Your task to perform on an android device: move an email to a new category in the gmail app Image 0: 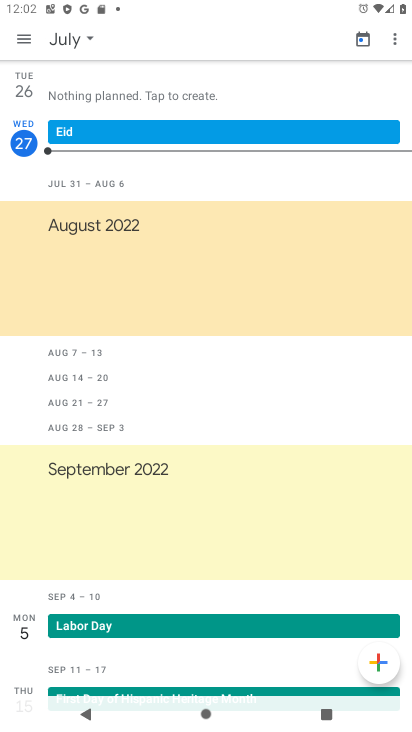
Step 0: press home button
Your task to perform on an android device: move an email to a new category in the gmail app Image 1: 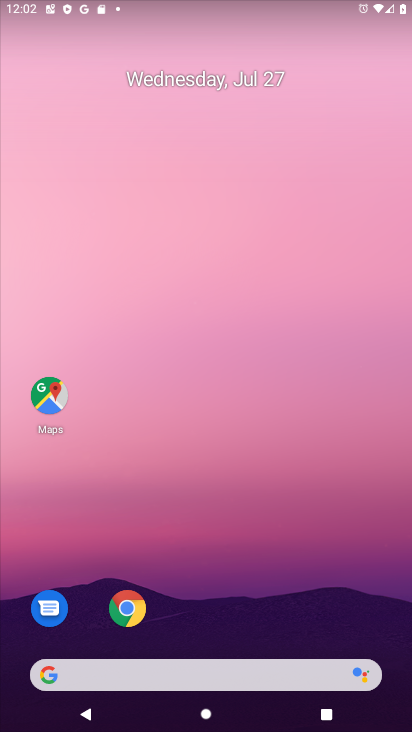
Step 1: drag from (186, 681) to (218, 5)
Your task to perform on an android device: move an email to a new category in the gmail app Image 2: 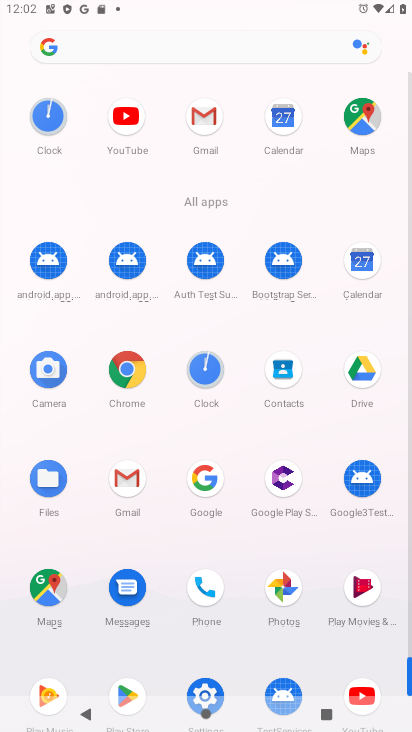
Step 2: click (126, 478)
Your task to perform on an android device: move an email to a new category in the gmail app Image 3: 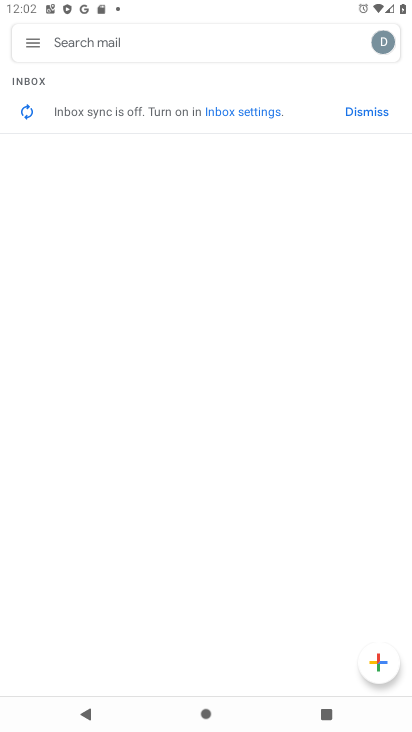
Step 3: click (36, 46)
Your task to perform on an android device: move an email to a new category in the gmail app Image 4: 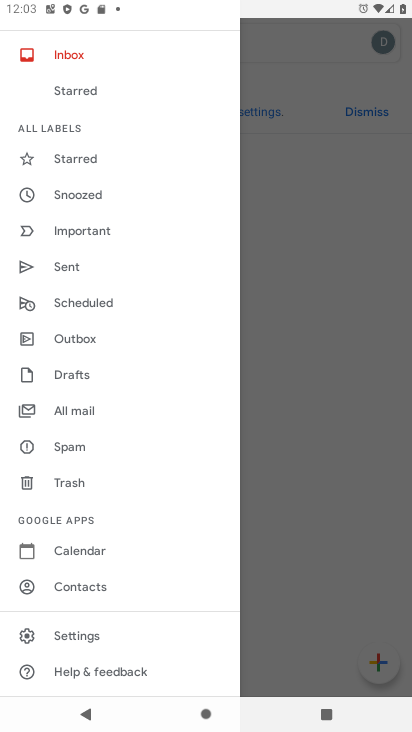
Step 4: click (86, 89)
Your task to perform on an android device: move an email to a new category in the gmail app Image 5: 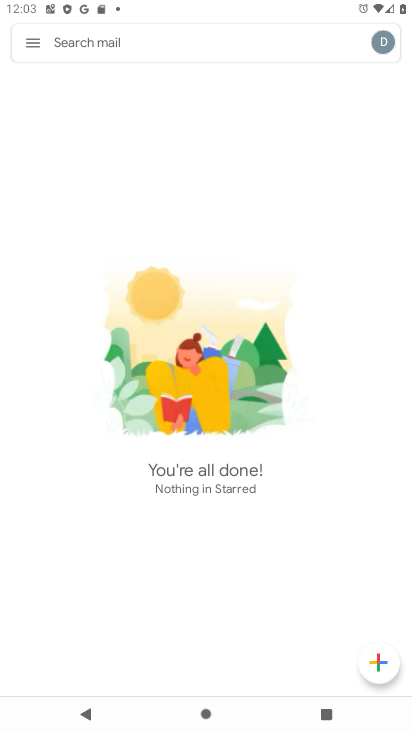
Step 5: click (30, 41)
Your task to perform on an android device: move an email to a new category in the gmail app Image 6: 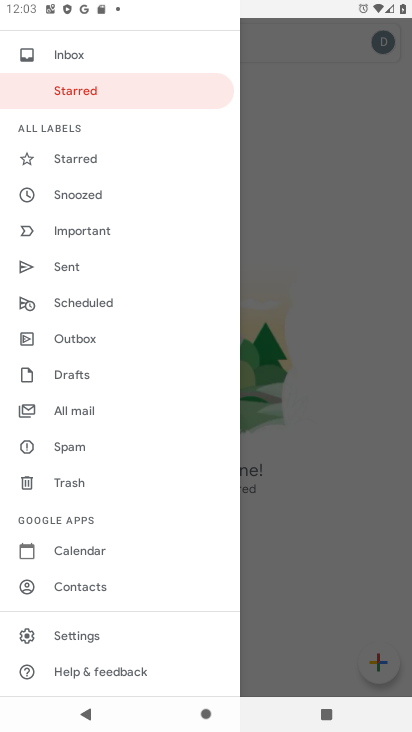
Step 6: click (71, 158)
Your task to perform on an android device: move an email to a new category in the gmail app Image 7: 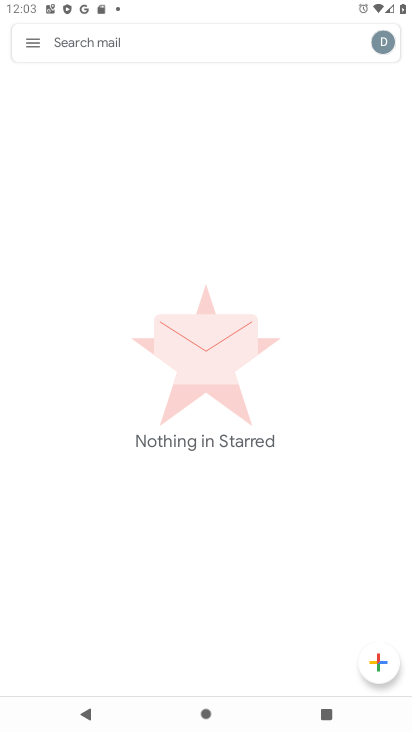
Step 7: click (39, 46)
Your task to perform on an android device: move an email to a new category in the gmail app Image 8: 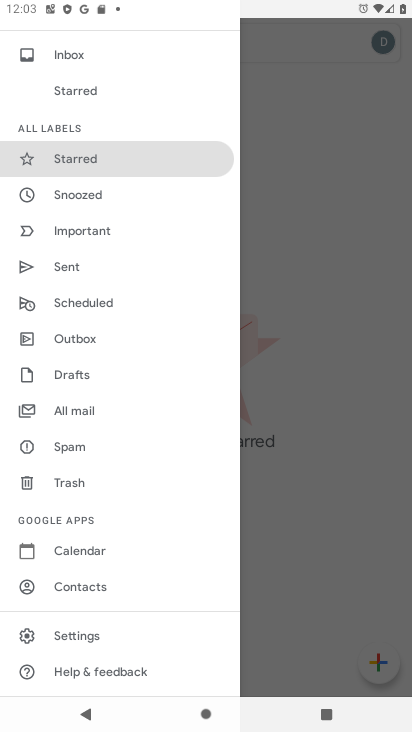
Step 8: click (84, 190)
Your task to perform on an android device: move an email to a new category in the gmail app Image 9: 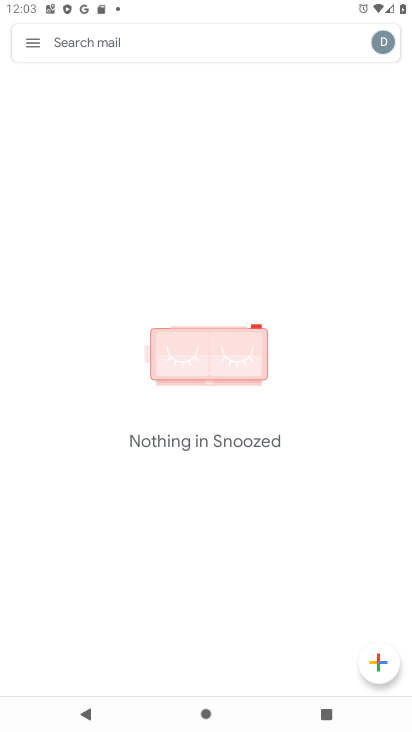
Step 9: click (31, 41)
Your task to perform on an android device: move an email to a new category in the gmail app Image 10: 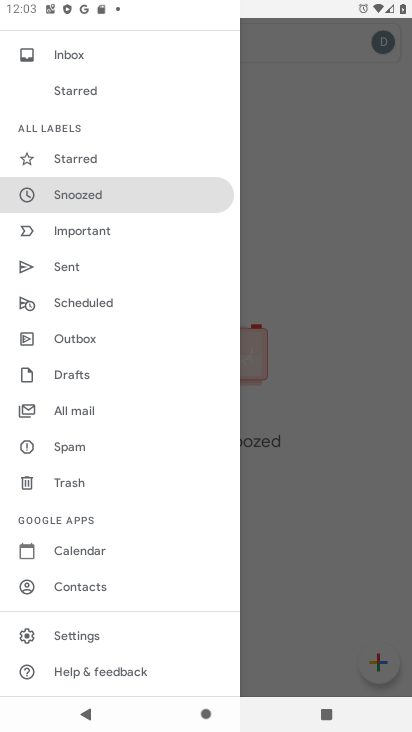
Step 10: click (68, 227)
Your task to perform on an android device: move an email to a new category in the gmail app Image 11: 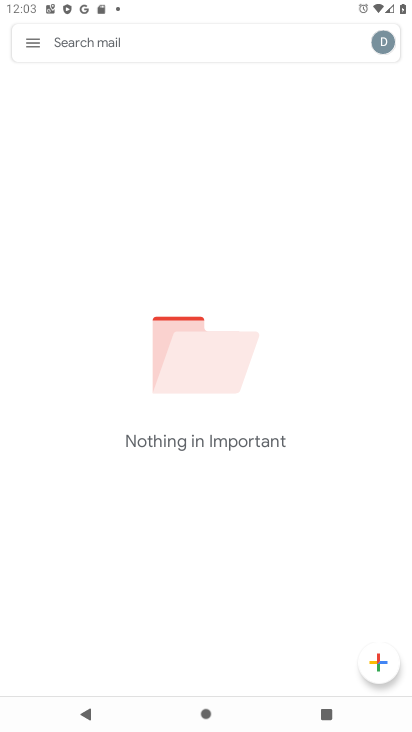
Step 11: click (28, 38)
Your task to perform on an android device: move an email to a new category in the gmail app Image 12: 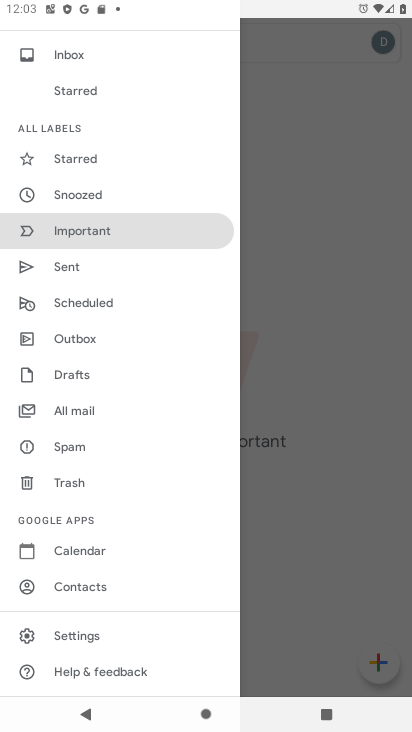
Step 12: click (53, 266)
Your task to perform on an android device: move an email to a new category in the gmail app Image 13: 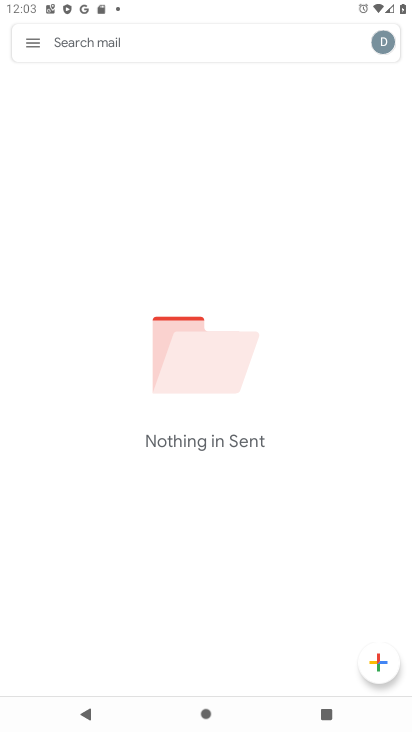
Step 13: click (37, 47)
Your task to perform on an android device: move an email to a new category in the gmail app Image 14: 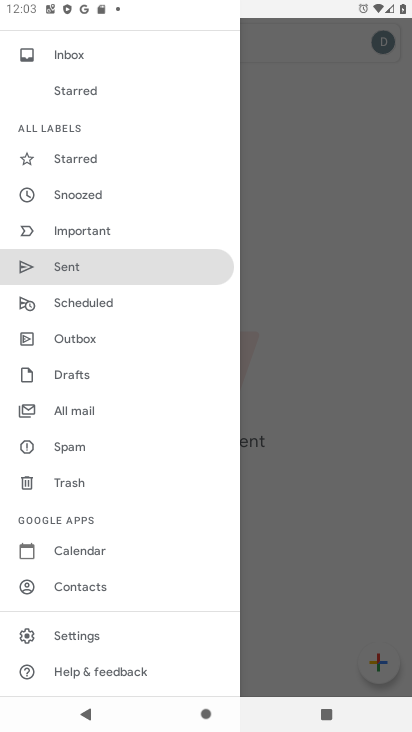
Step 14: click (51, 299)
Your task to perform on an android device: move an email to a new category in the gmail app Image 15: 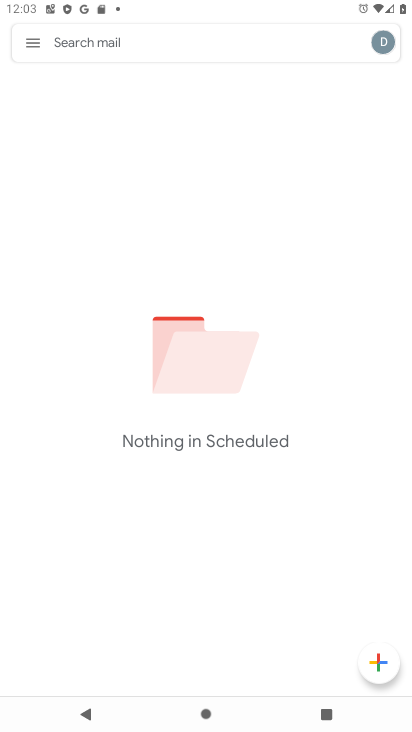
Step 15: click (37, 46)
Your task to perform on an android device: move an email to a new category in the gmail app Image 16: 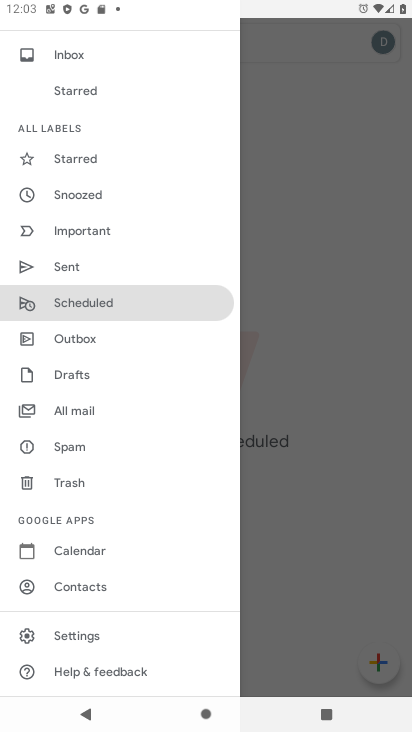
Step 16: click (78, 336)
Your task to perform on an android device: move an email to a new category in the gmail app Image 17: 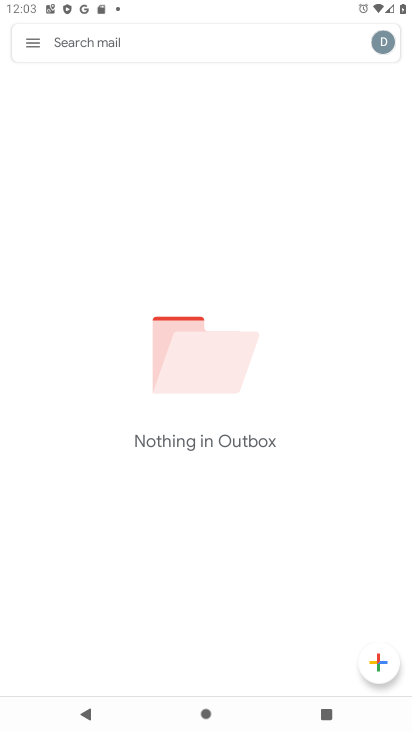
Step 17: click (39, 47)
Your task to perform on an android device: move an email to a new category in the gmail app Image 18: 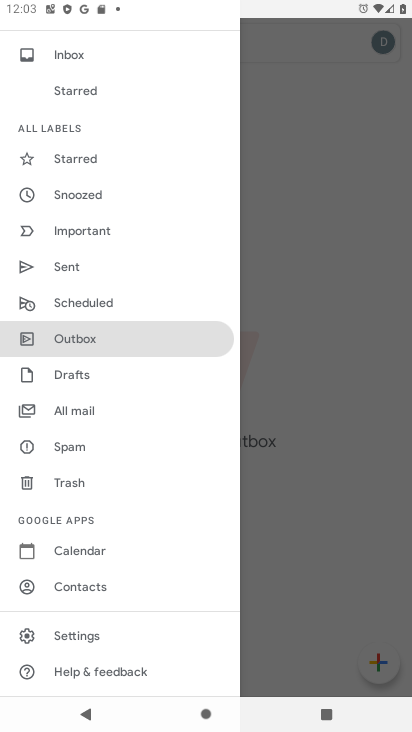
Step 18: click (66, 371)
Your task to perform on an android device: move an email to a new category in the gmail app Image 19: 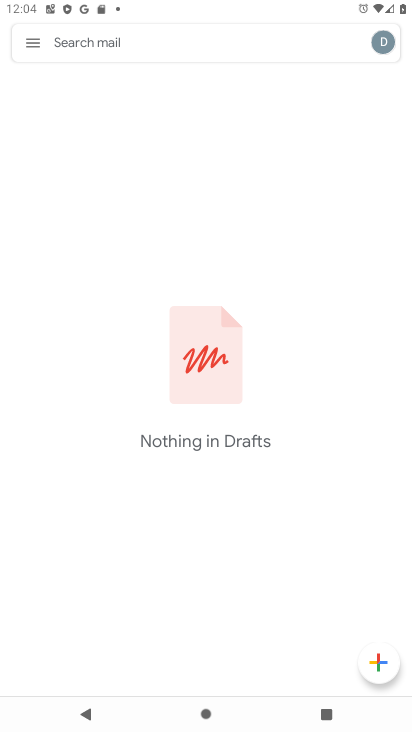
Step 19: click (35, 39)
Your task to perform on an android device: move an email to a new category in the gmail app Image 20: 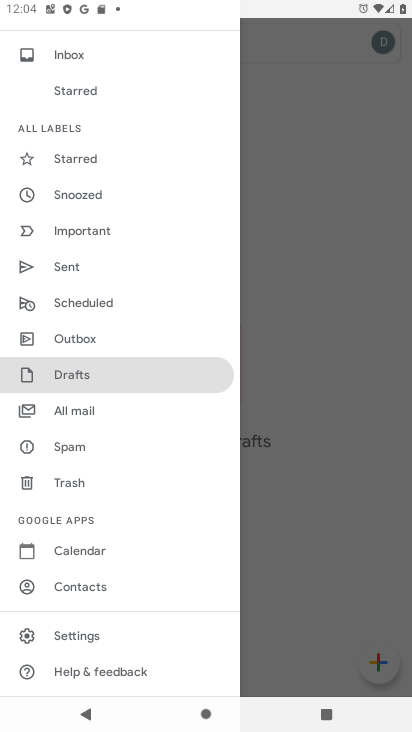
Step 20: click (66, 412)
Your task to perform on an android device: move an email to a new category in the gmail app Image 21: 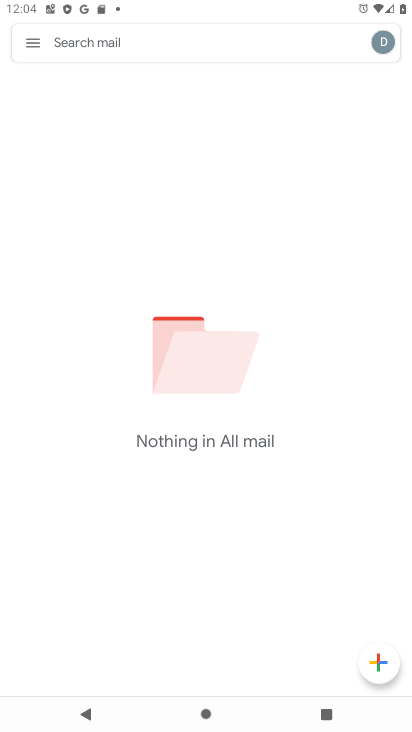
Step 21: click (32, 43)
Your task to perform on an android device: move an email to a new category in the gmail app Image 22: 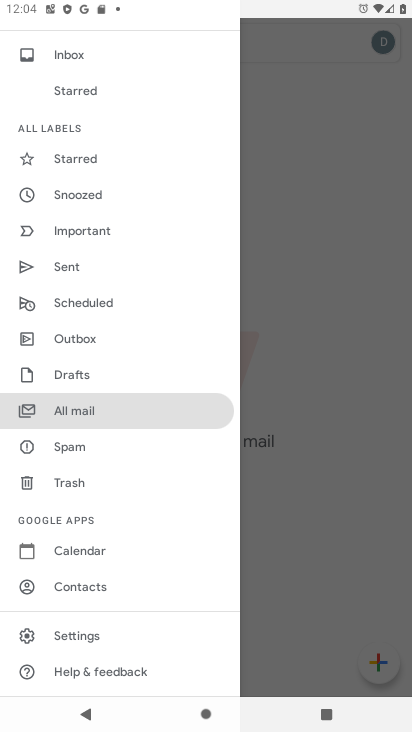
Step 22: click (67, 439)
Your task to perform on an android device: move an email to a new category in the gmail app Image 23: 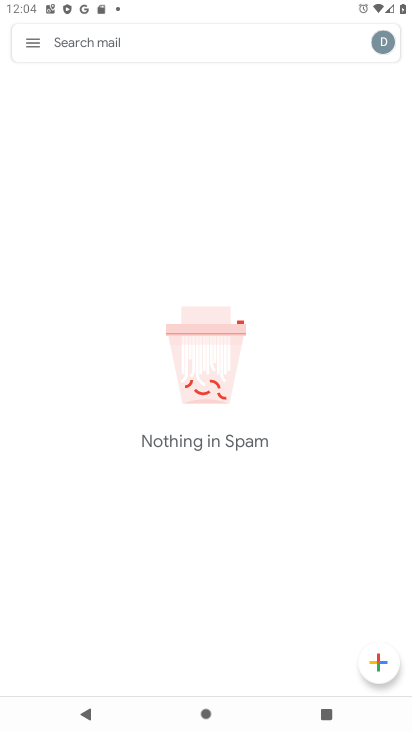
Step 23: click (31, 42)
Your task to perform on an android device: move an email to a new category in the gmail app Image 24: 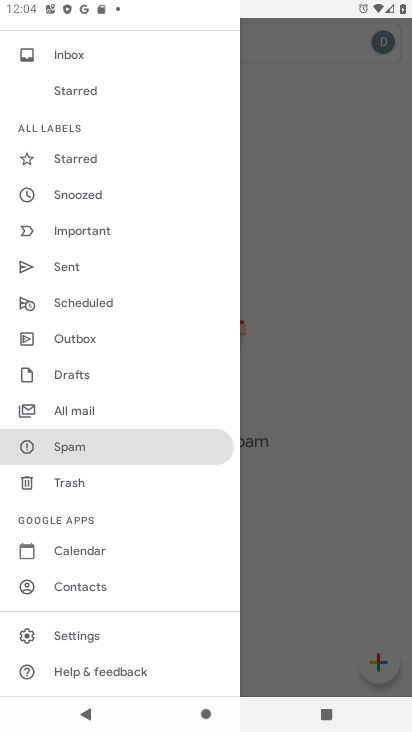
Step 24: click (76, 487)
Your task to perform on an android device: move an email to a new category in the gmail app Image 25: 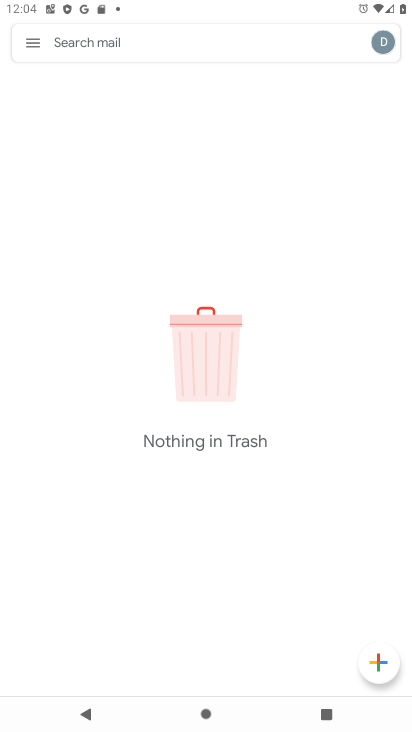
Step 25: click (32, 42)
Your task to perform on an android device: move an email to a new category in the gmail app Image 26: 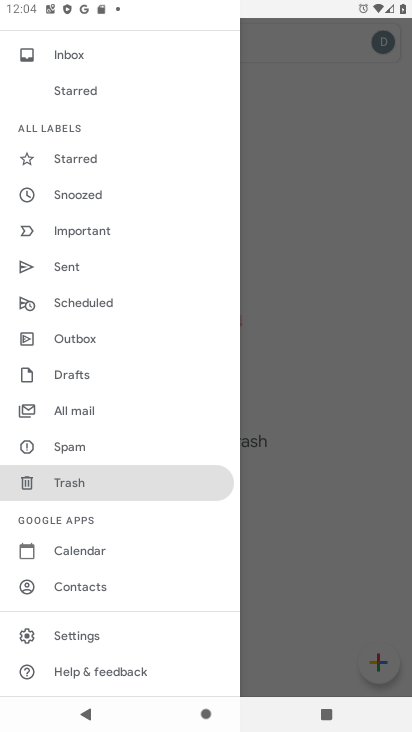
Step 26: task complete